Your task to perform on an android device: What is the recent news? Image 0: 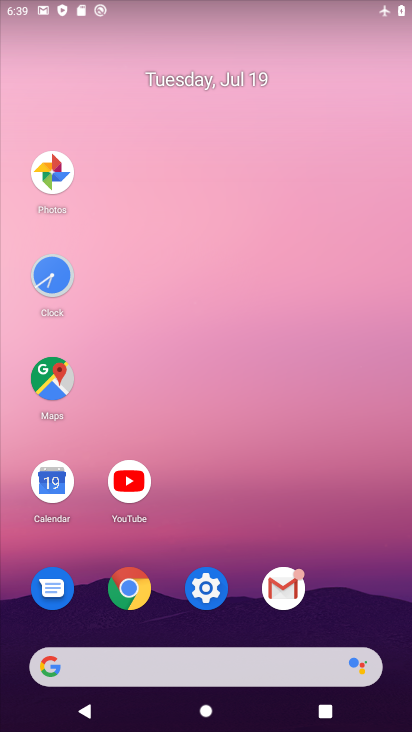
Step 0: drag from (11, 110) to (377, 212)
Your task to perform on an android device: What is the recent news? Image 1: 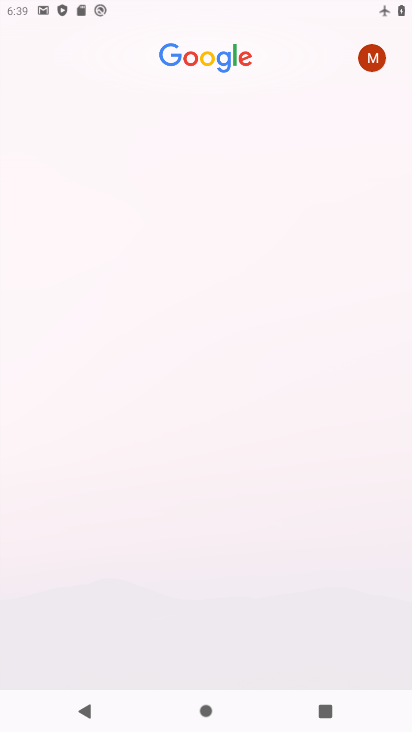
Step 1: task complete